Your task to perform on an android device: turn off priority inbox in the gmail app Image 0: 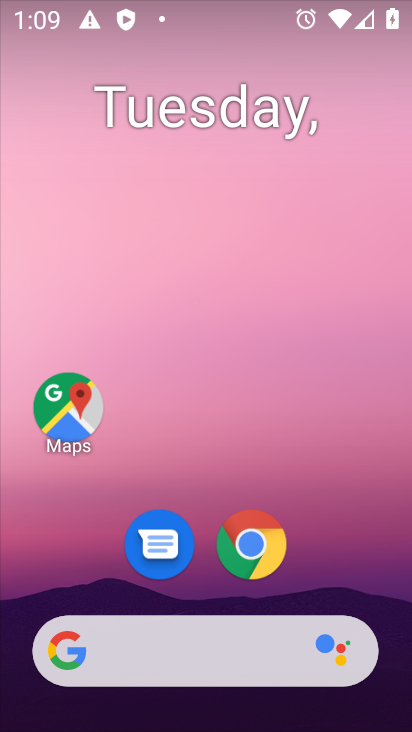
Step 0: drag from (303, 339) to (277, 0)
Your task to perform on an android device: turn off priority inbox in the gmail app Image 1: 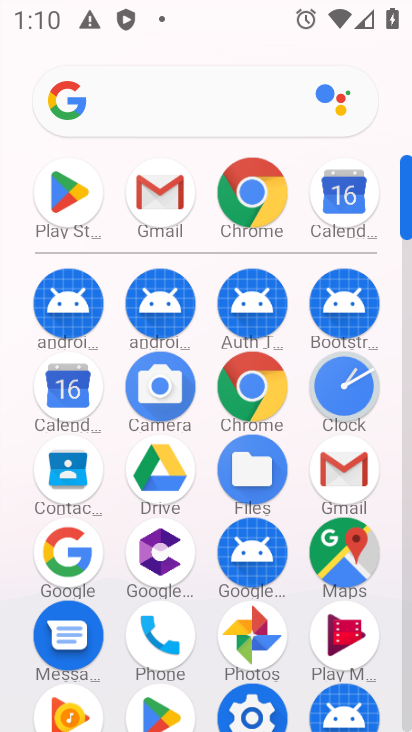
Step 1: click (357, 461)
Your task to perform on an android device: turn off priority inbox in the gmail app Image 2: 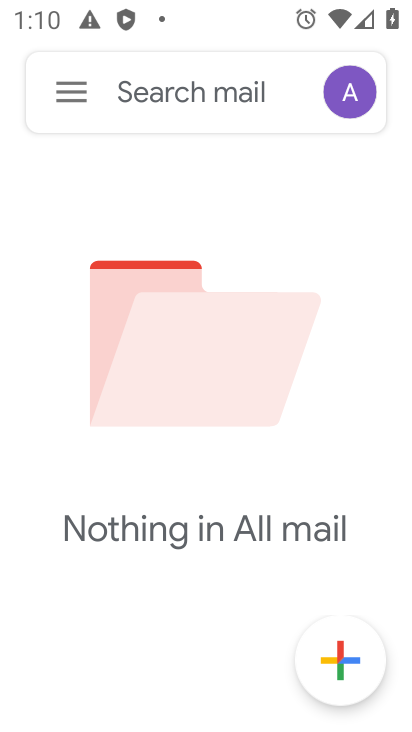
Step 2: click (77, 88)
Your task to perform on an android device: turn off priority inbox in the gmail app Image 3: 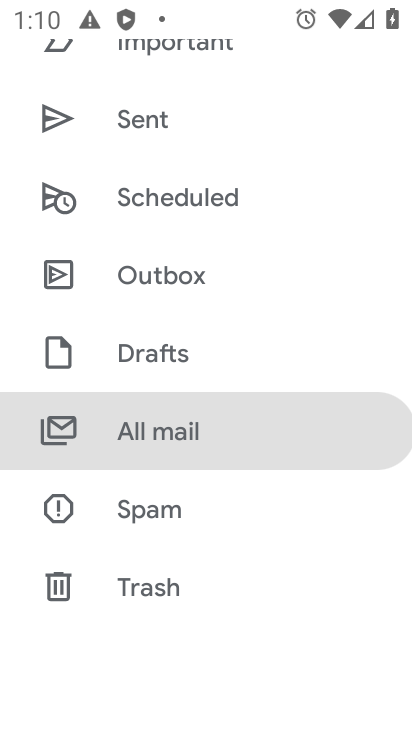
Step 3: drag from (161, 574) to (207, 2)
Your task to perform on an android device: turn off priority inbox in the gmail app Image 4: 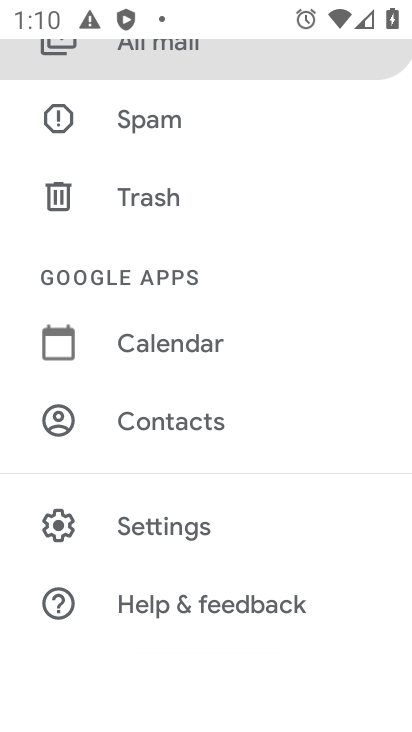
Step 4: click (160, 515)
Your task to perform on an android device: turn off priority inbox in the gmail app Image 5: 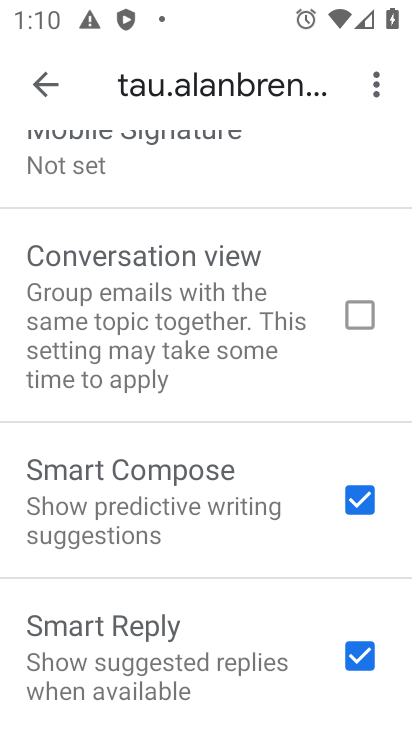
Step 5: drag from (196, 124) to (179, 671)
Your task to perform on an android device: turn off priority inbox in the gmail app Image 6: 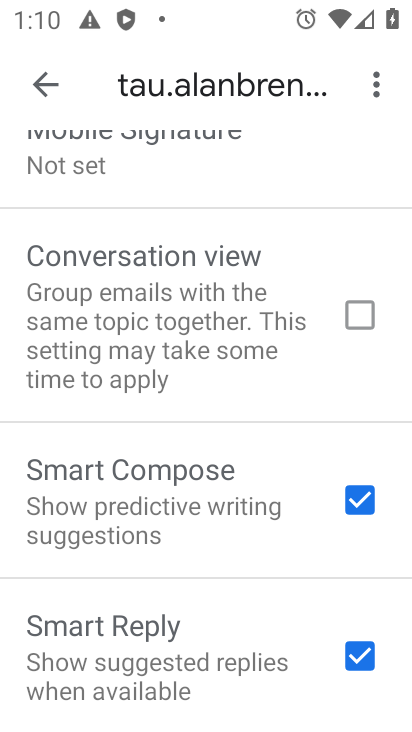
Step 6: drag from (208, 181) to (211, 701)
Your task to perform on an android device: turn off priority inbox in the gmail app Image 7: 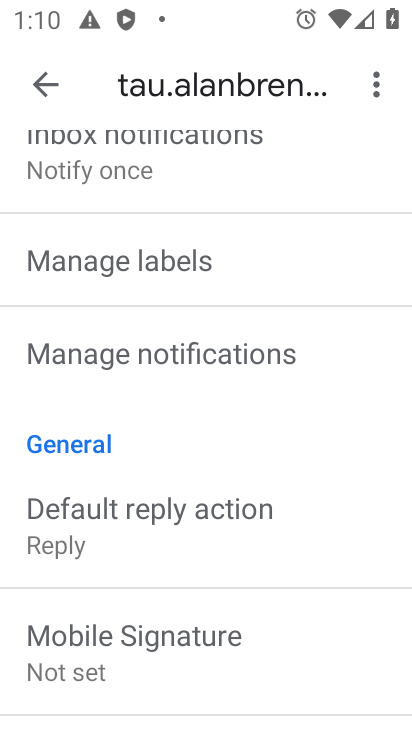
Step 7: drag from (248, 197) to (190, 694)
Your task to perform on an android device: turn off priority inbox in the gmail app Image 8: 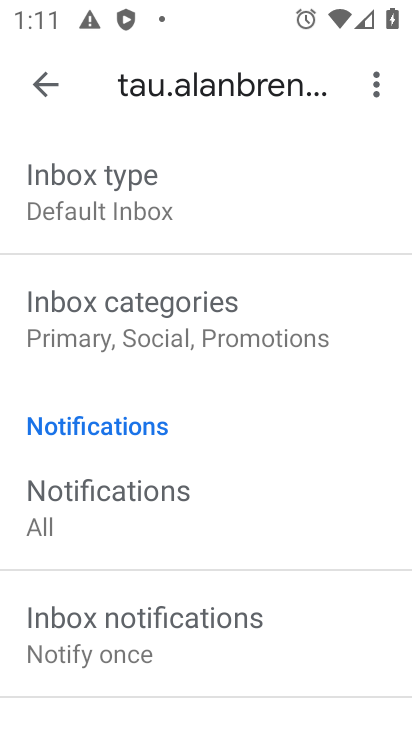
Step 8: click (148, 180)
Your task to perform on an android device: turn off priority inbox in the gmail app Image 9: 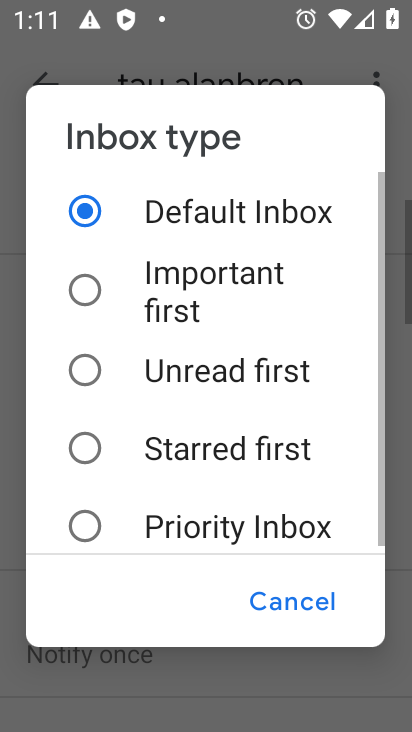
Step 9: task complete